Your task to perform on an android device: Open Youtube and go to the subscriptions tab Image 0: 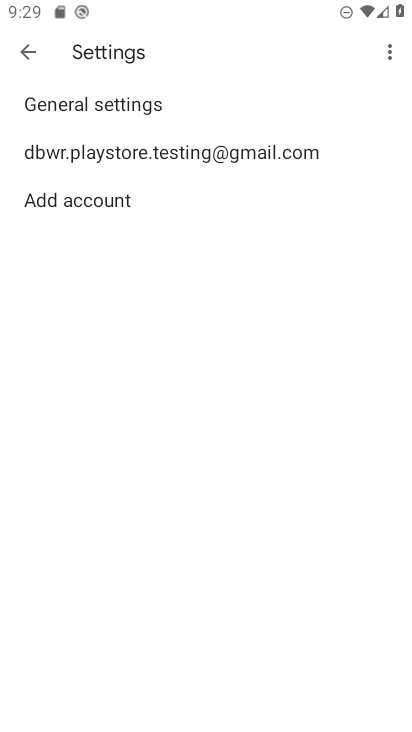
Step 0: press home button
Your task to perform on an android device: Open Youtube and go to the subscriptions tab Image 1: 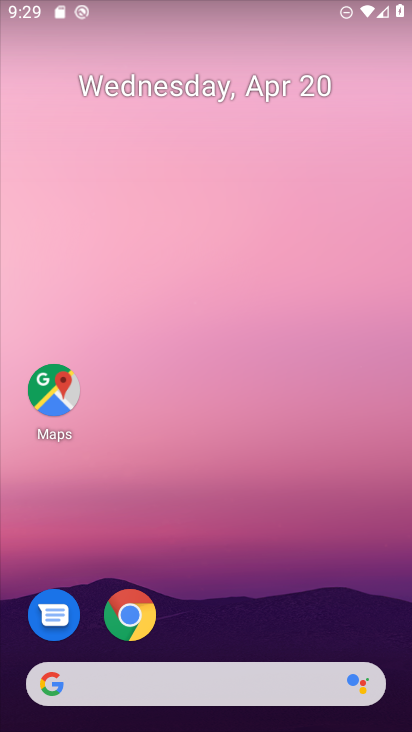
Step 1: drag from (243, 614) to (204, 48)
Your task to perform on an android device: Open Youtube and go to the subscriptions tab Image 2: 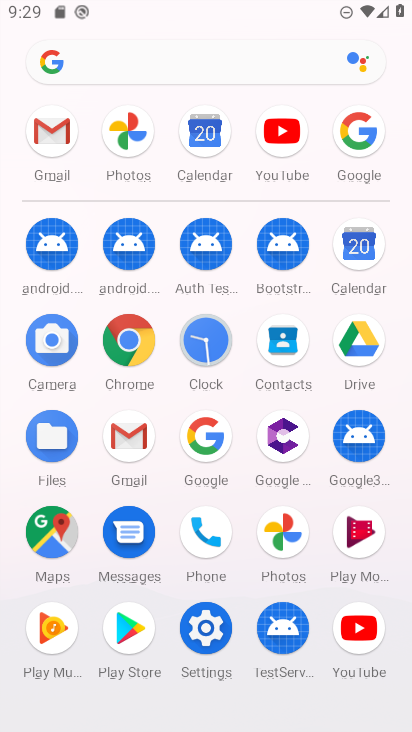
Step 2: click (282, 134)
Your task to perform on an android device: Open Youtube and go to the subscriptions tab Image 3: 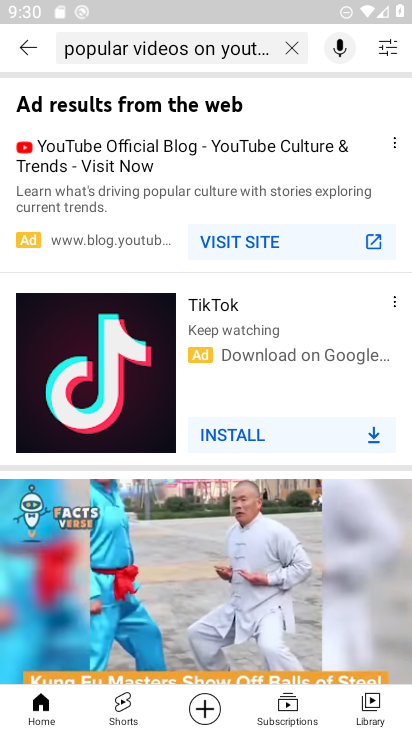
Step 3: click (286, 713)
Your task to perform on an android device: Open Youtube and go to the subscriptions tab Image 4: 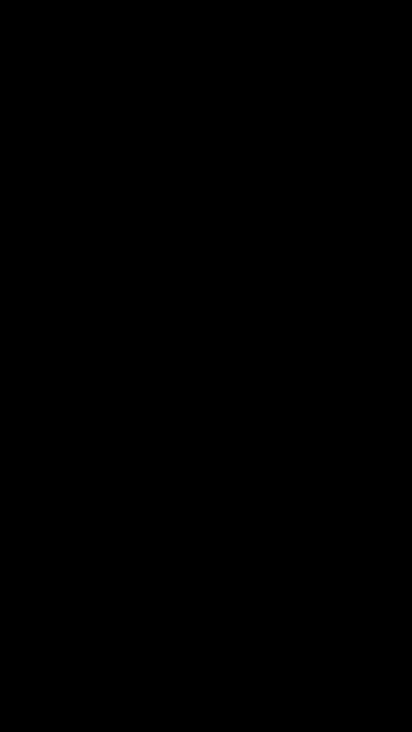
Step 4: task complete